Your task to perform on an android device: Open network settings Image 0: 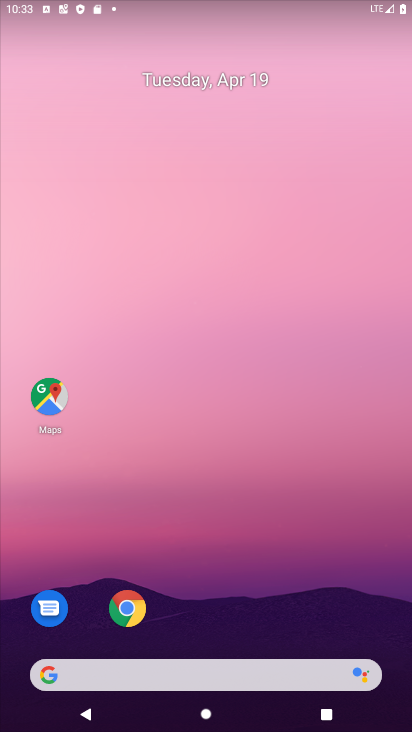
Step 0: drag from (377, 617) to (344, 84)
Your task to perform on an android device: Open network settings Image 1: 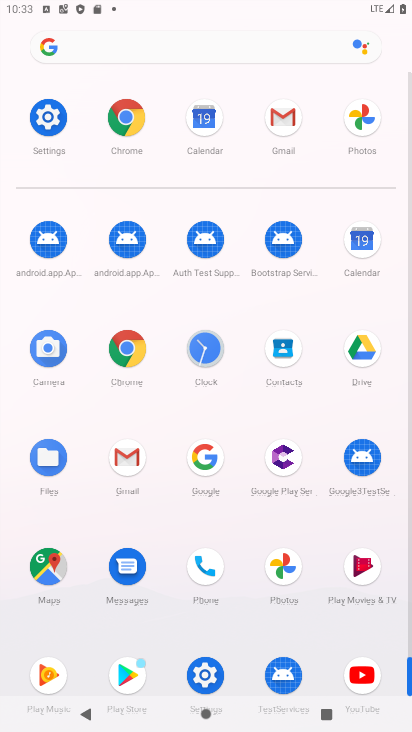
Step 1: click (205, 676)
Your task to perform on an android device: Open network settings Image 2: 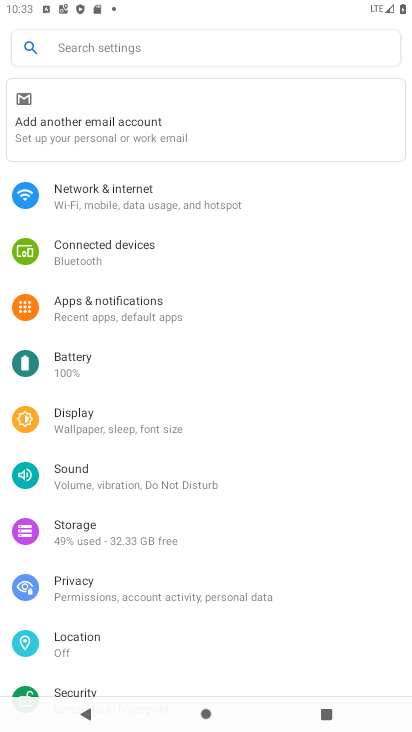
Step 2: click (73, 195)
Your task to perform on an android device: Open network settings Image 3: 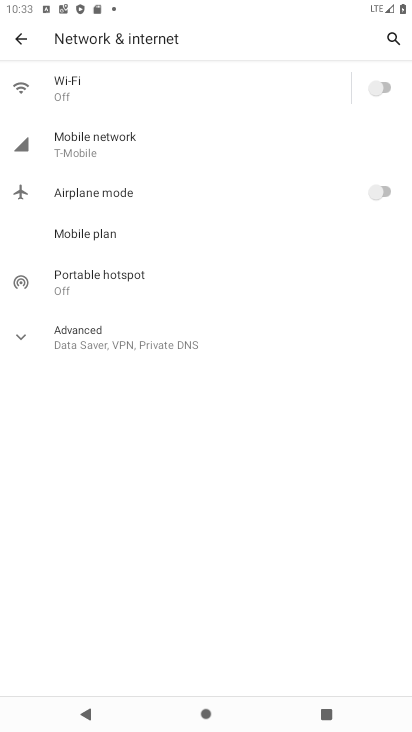
Step 3: click (18, 340)
Your task to perform on an android device: Open network settings Image 4: 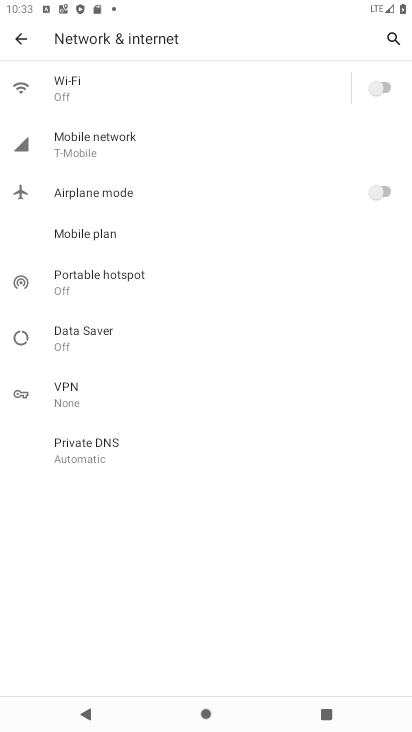
Step 4: click (85, 154)
Your task to perform on an android device: Open network settings Image 5: 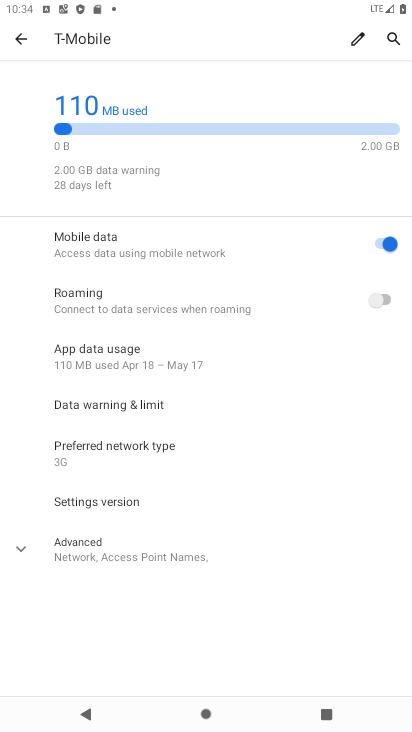
Step 5: click (15, 546)
Your task to perform on an android device: Open network settings Image 6: 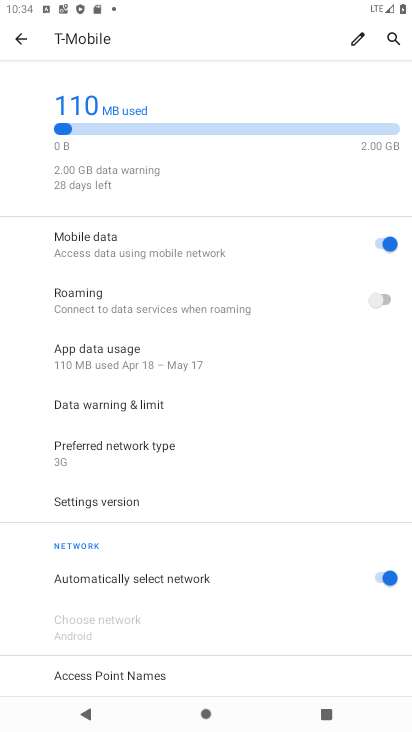
Step 6: task complete